Your task to perform on an android device: Open Google Chrome Image 0: 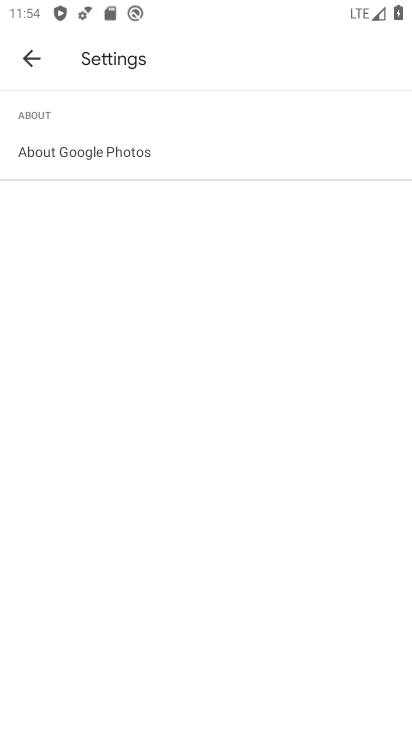
Step 0: press home button
Your task to perform on an android device: Open Google Chrome Image 1: 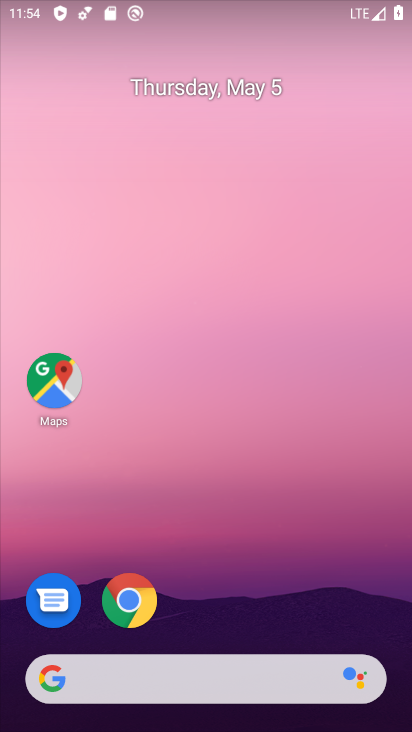
Step 1: drag from (356, 610) to (310, 91)
Your task to perform on an android device: Open Google Chrome Image 2: 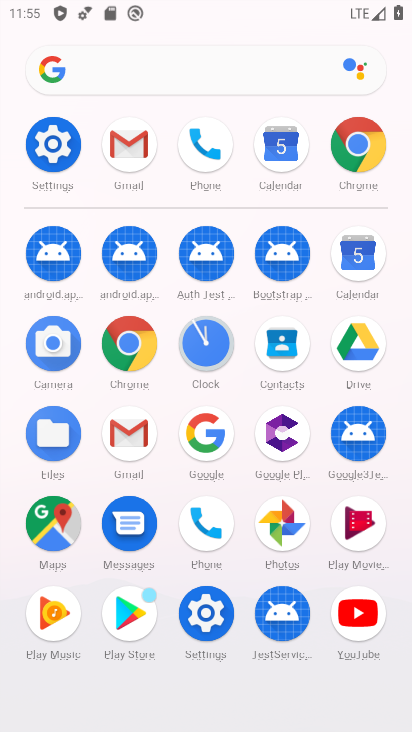
Step 2: click (135, 349)
Your task to perform on an android device: Open Google Chrome Image 3: 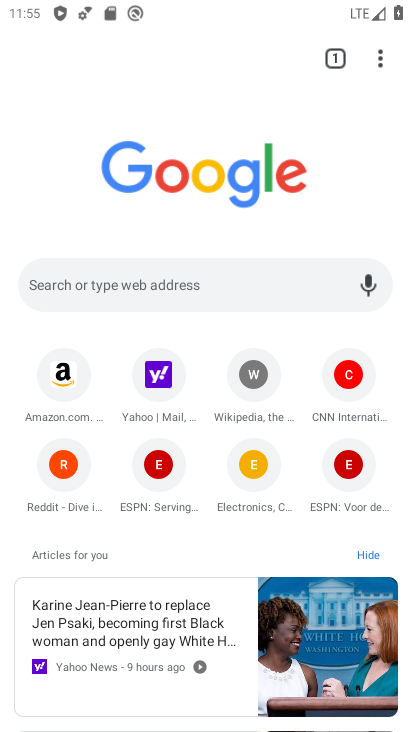
Step 3: task complete